Your task to perform on an android device: clear history in the chrome app Image 0: 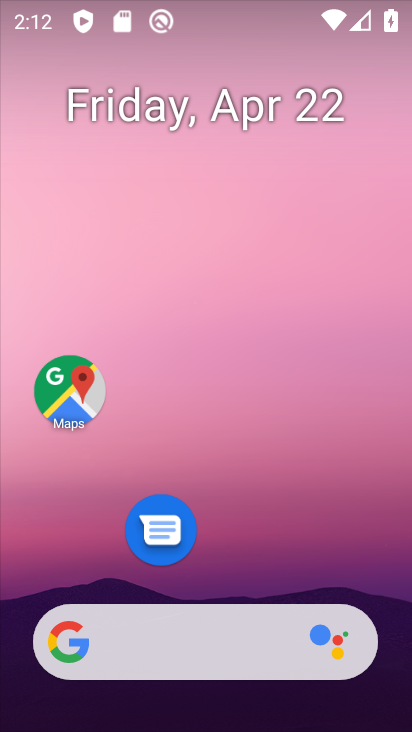
Step 0: drag from (260, 554) to (216, 38)
Your task to perform on an android device: clear history in the chrome app Image 1: 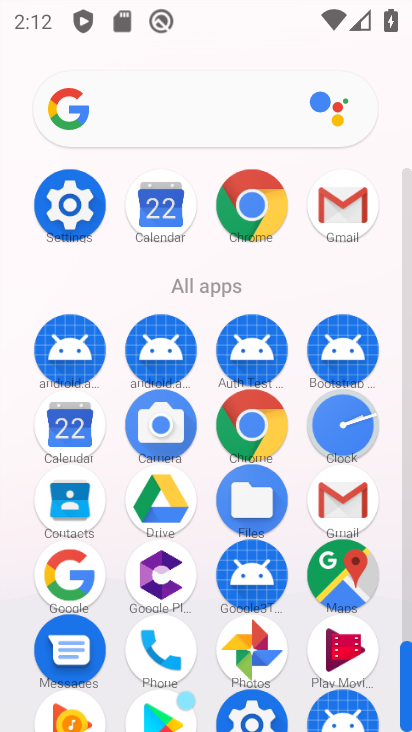
Step 1: click (254, 204)
Your task to perform on an android device: clear history in the chrome app Image 2: 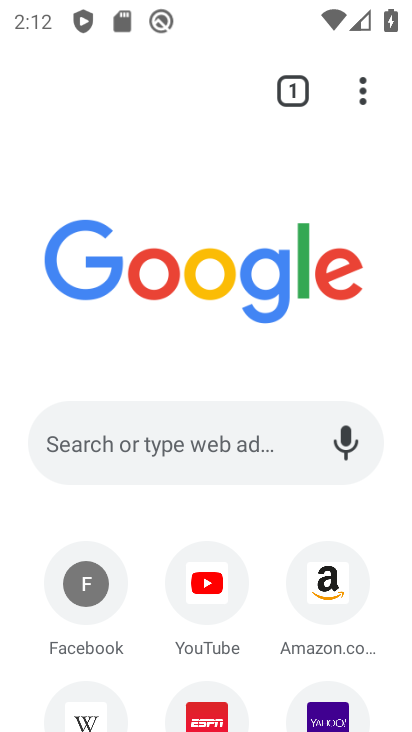
Step 2: click (361, 92)
Your task to perform on an android device: clear history in the chrome app Image 3: 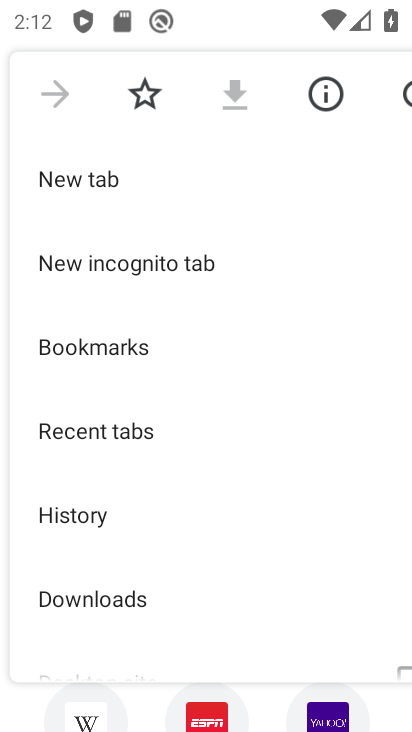
Step 3: click (80, 516)
Your task to perform on an android device: clear history in the chrome app Image 4: 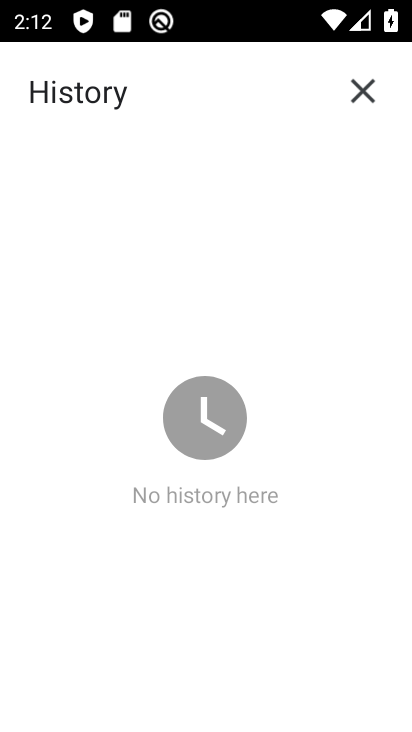
Step 4: task complete